Your task to perform on an android device: turn on airplane mode Image 0: 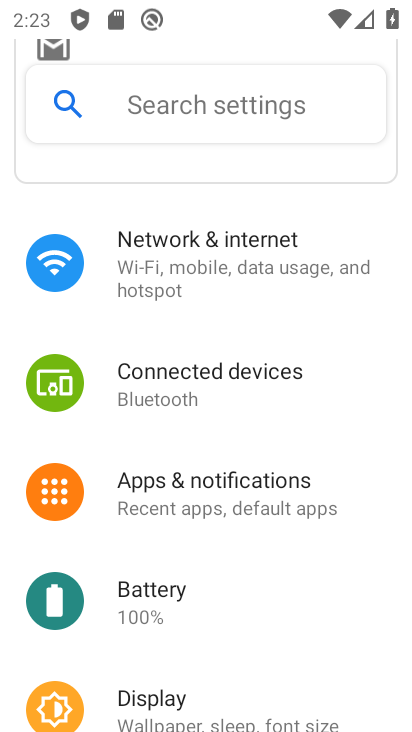
Step 0: click (204, 280)
Your task to perform on an android device: turn on airplane mode Image 1: 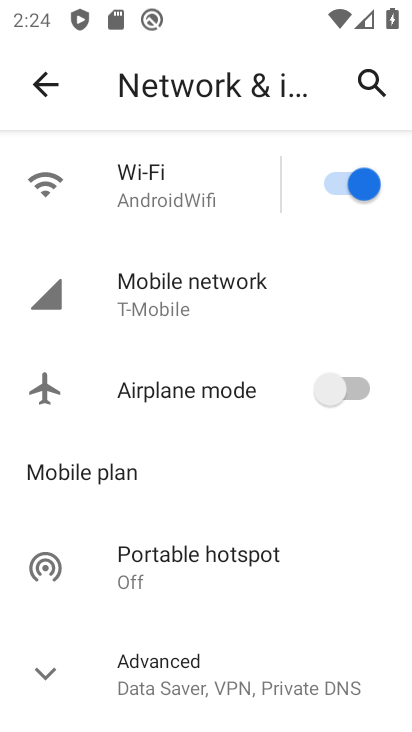
Step 1: click (370, 387)
Your task to perform on an android device: turn on airplane mode Image 2: 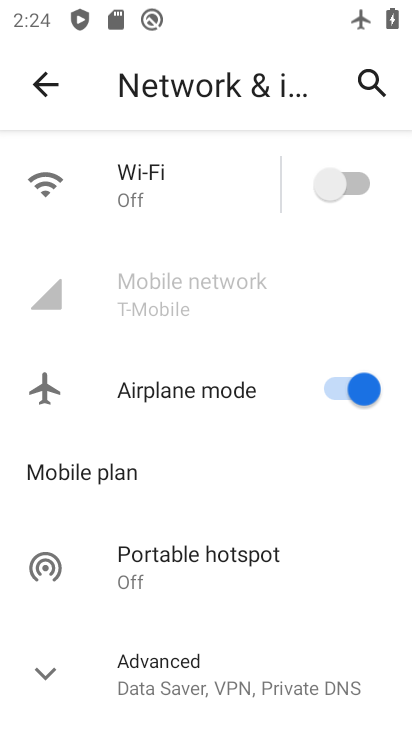
Step 2: task complete